Your task to perform on an android device: check the backup settings in the google photos Image 0: 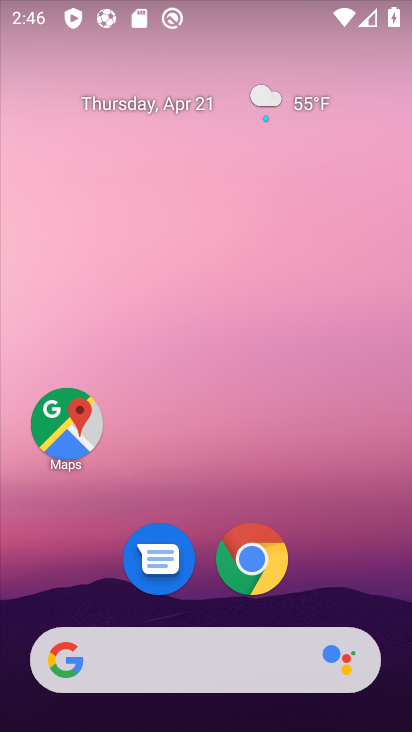
Step 0: drag from (343, 594) to (286, 77)
Your task to perform on an android device: check the backup settings in the google photos Image 1: 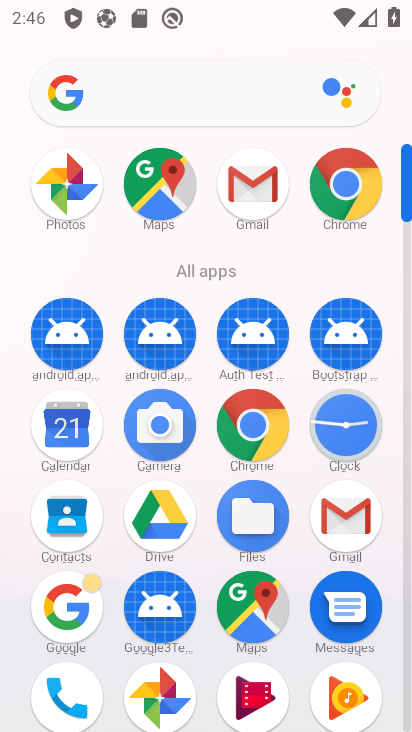
Step 1: click (172, 704)
Your task to perform on an android device: check the backup settings in the google photos Image 2: 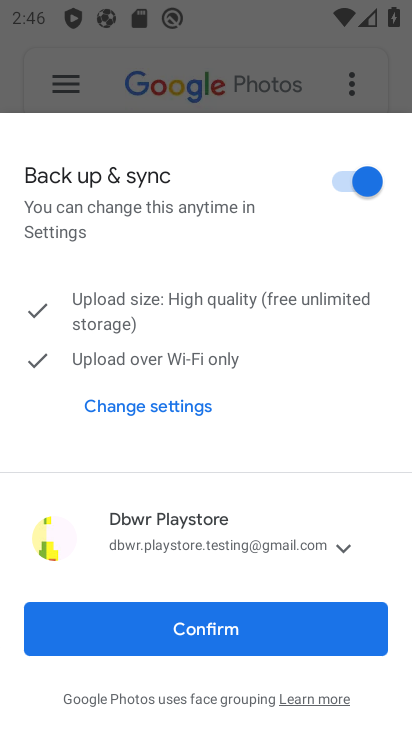
Step 2: click (178, 629)
Your task to perform on an android device: check the backup settings in the google photos Image 3: 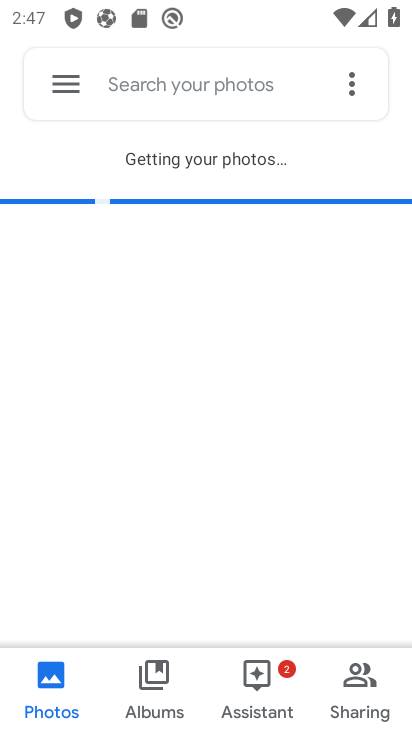
Step 3: click (78, 86)
Your task to perform on an android device: check the backup settings in the google photos Image 4: 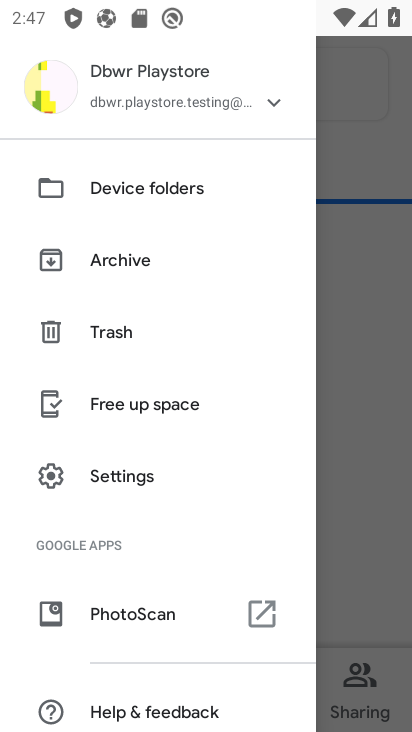
Step 4: click (126, 479)
Your task to perform on an android device: check the backup settings in the google photos Image 5: 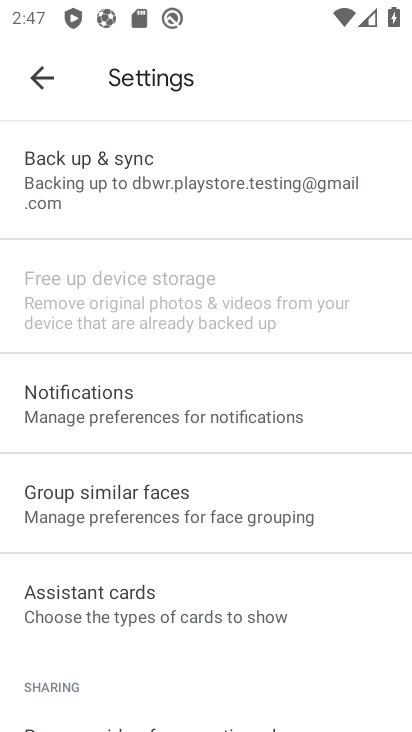
Step 5: click (125, 189)
Your task to perform on an android device: check the backup settings in the google photos Image 6: 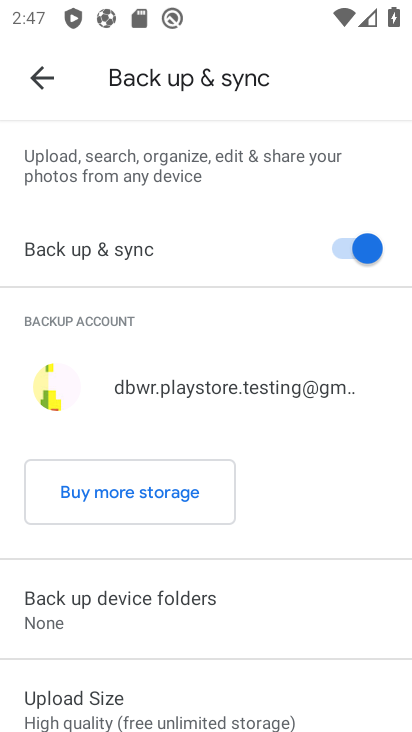
Step 6: task complete